Your task to perform on an android device: turn vacation reply on in the gmail app Image 0: 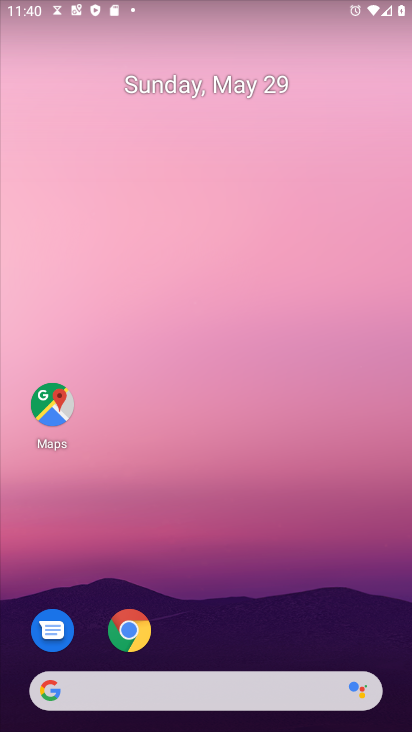
Step 0: drag from (225, 572) to (216, 220)
Your task to perform on an android device: turn vacation reply on in the gmail app Image 1: 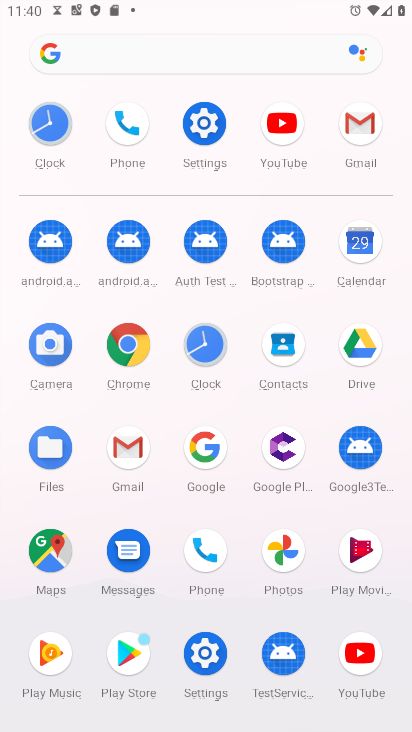
Step 1: click (134, 458)
Your task to perform on an android device: turn vacation reply on in the gmail app Image 2: 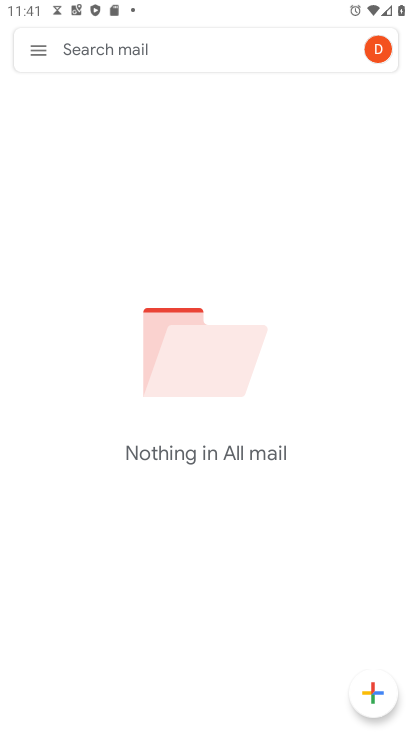
Step 2: click (42, 38)
Your task to perform on an android device: turn vacation reply on in the gmail app Image 3: 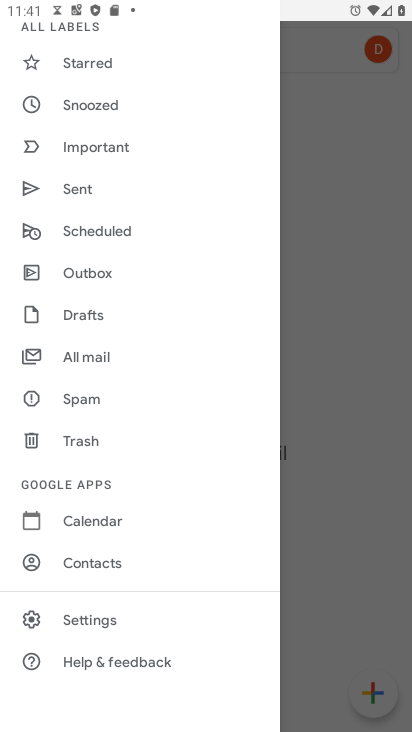
Step 3: click (90, 627)
Your task to perform on an android device: turn vacation reply on in the gmail app Image 4: 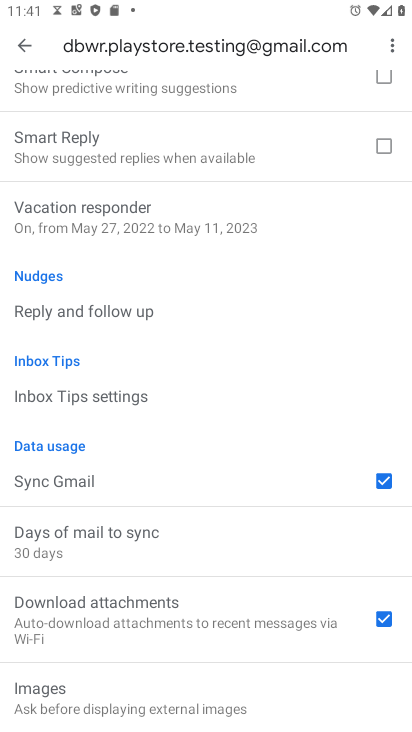
Step 4: click (107, 231)
Your task to perform on an android device: turn vacation reply on in the gmail app Image 5: 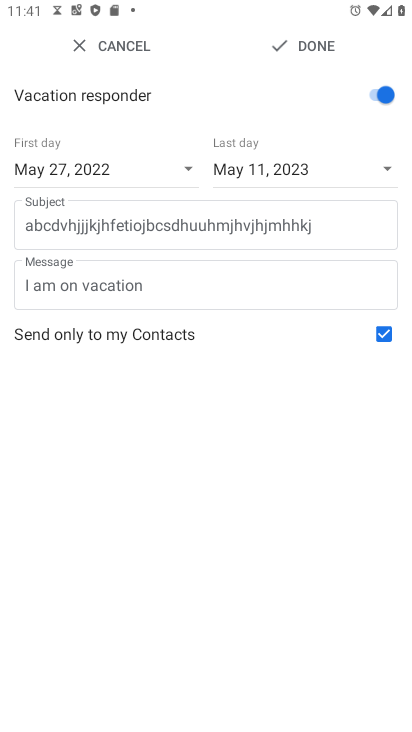
Step 5: click (325, 24)
Your task to perform on an android device: turn vacation reply on in the gmail app Image 6: 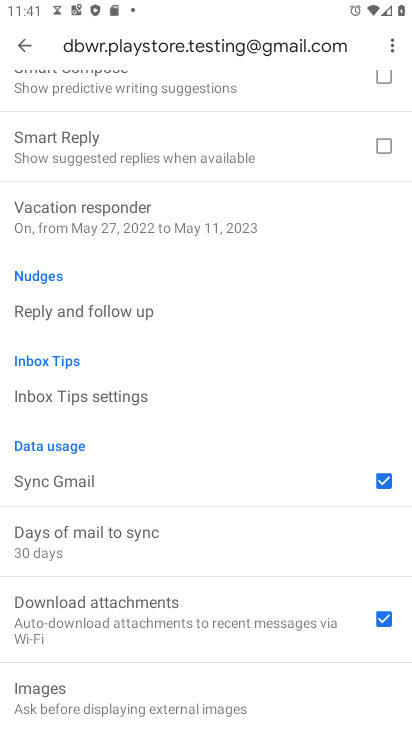
Step 6: task complete